Your task to perform on an android device: change your default location settings in chrome Image 0: 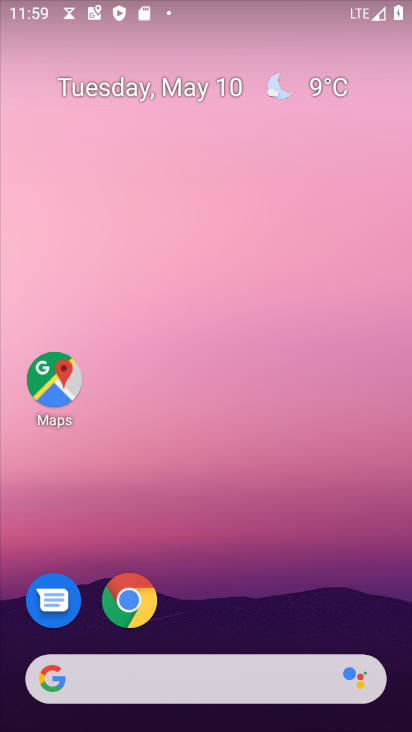
Step 0: click (135, 599)
Your task to perform on an android device: change your default location settings in chrome Image 1: 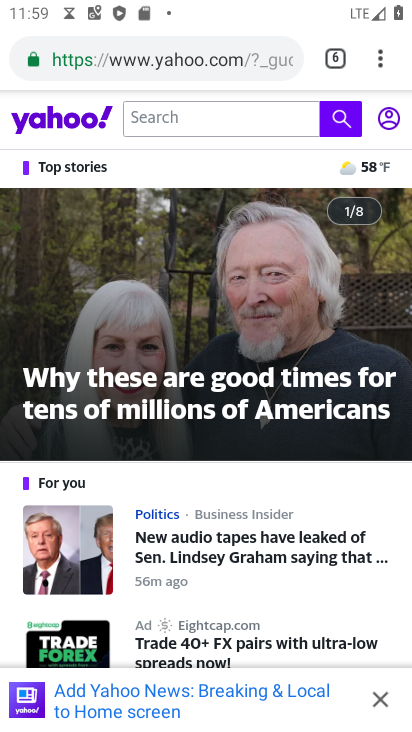
Step 1: click (377, 63)
Your task to perform on an android device: change your default location settings in chrome Image 2: 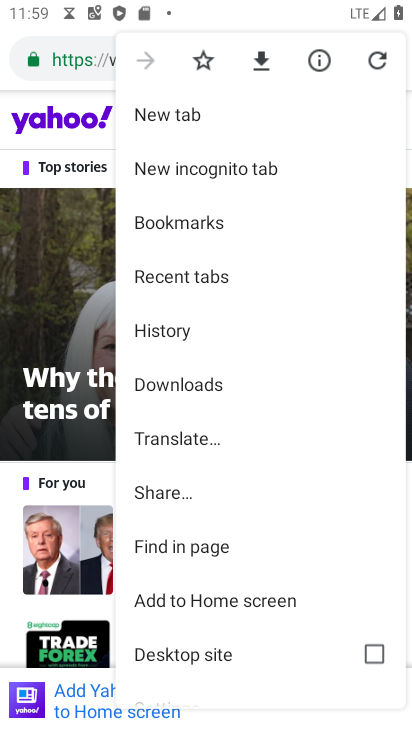
Step 2: drag from (210, 584) to (176, 190)
Your task to perform on an android device: change your default location settings in chrome Image 3: 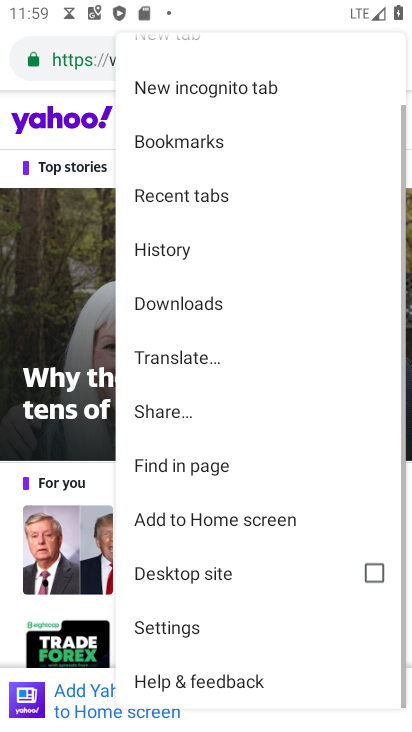
Step 3: click (181, 621)
Your task to perform on an android device: change your default location settings in chrome Image 4: 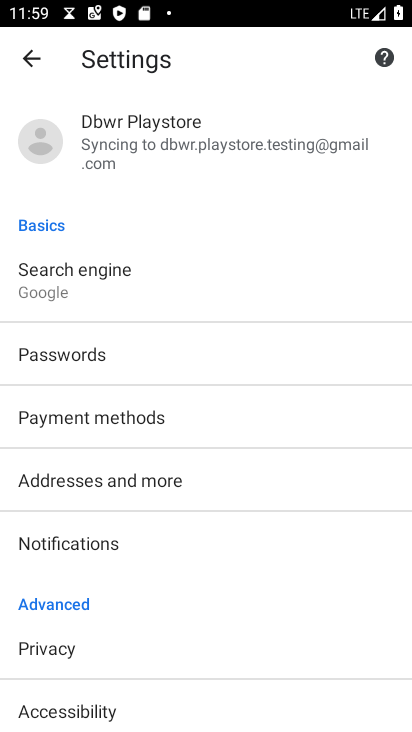
Step 4: drag from (212, 641) to (179, 222)
Your task to perform on an android device: change your default location settings in chrome Image 5: 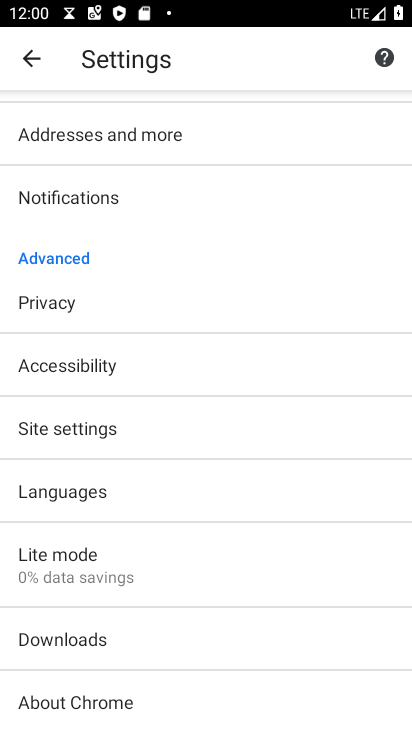
Step 5: click (121, 426)
Your task to perform on an android device: change your default location settings in chrome Image 6: 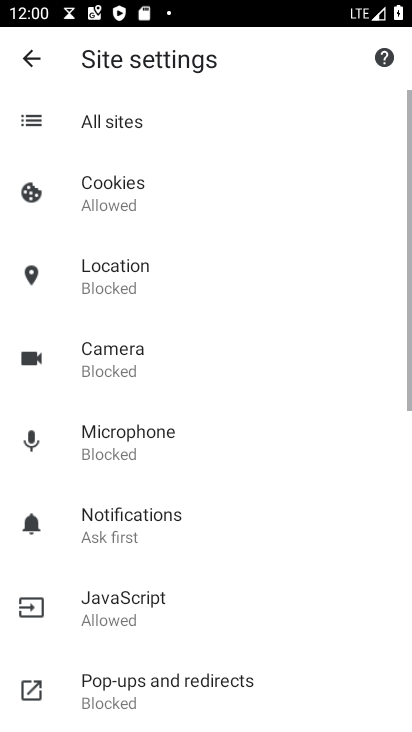
Step 6: click (154, 262)
Your task to perform on an android device: change your default location settings in chrome Image 7: 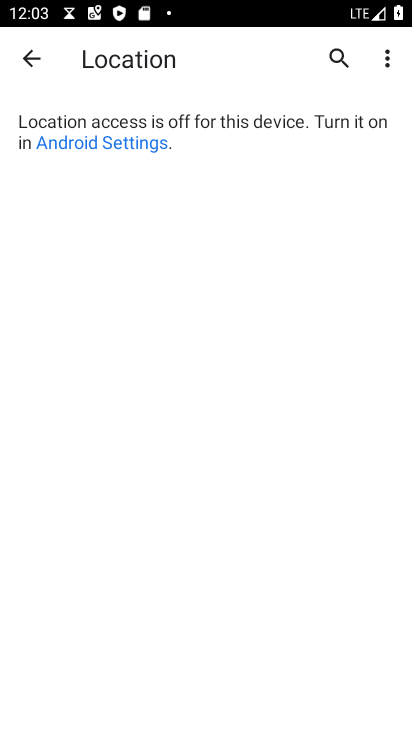
Step 7: task complete